Your task to perform on an android device: move an email to a new category in the gmail app Image 0: 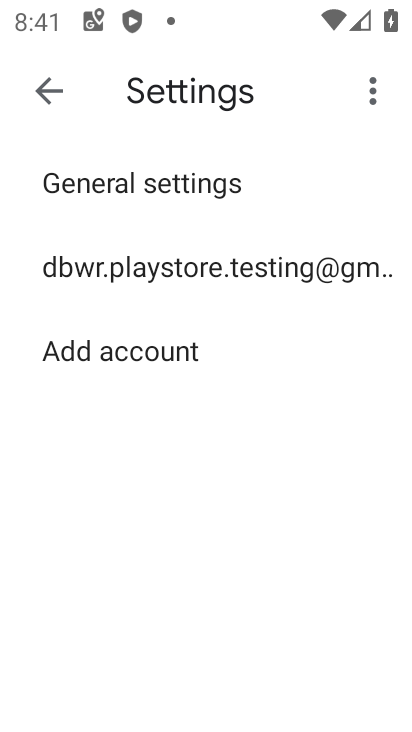
Step 0: click (172, 263)
Your task to perform on an android device: move an email to a new category in the gmail app Image 1: 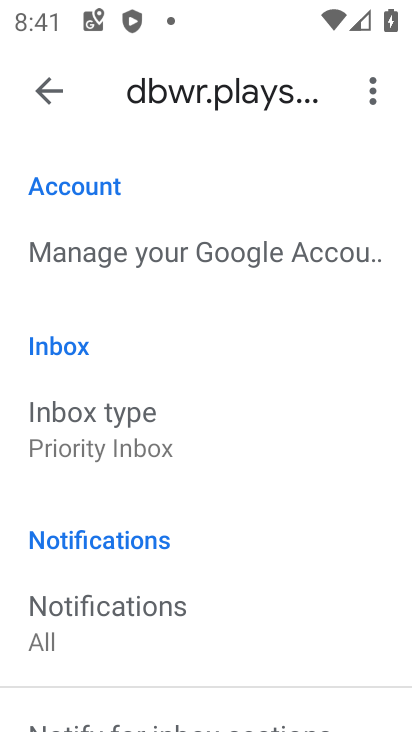
Step 1: click (44, 66)
Your task to perform on an android device: move an email to a new category in the gmail app Image 2: 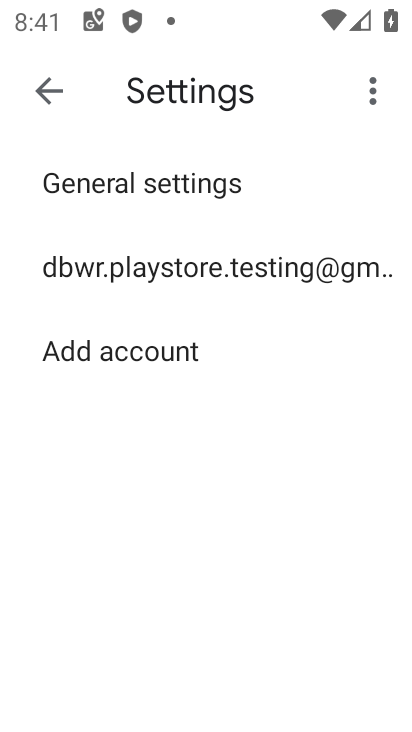
Step 2: click (53, 89)
Your task to perform on an android device: move an email to a new category in the gmail app Image 3: 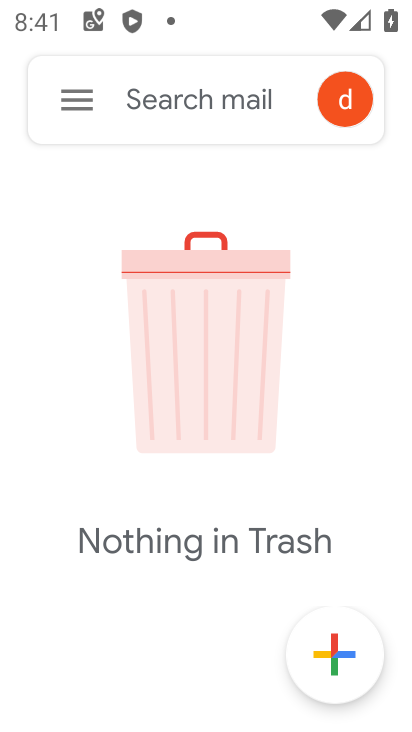
Step 3: click (67, 102)
Your task to perform on an android device: move an email to a new category in the gmail app Image 4: 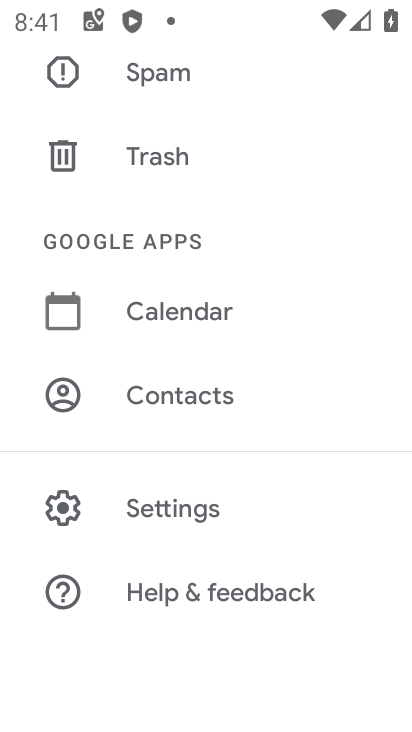
Step 4: drag from (175, 122) to (192, 658)
Your task to perform on an android device: move an email to a new category in the gmail app Image 5: 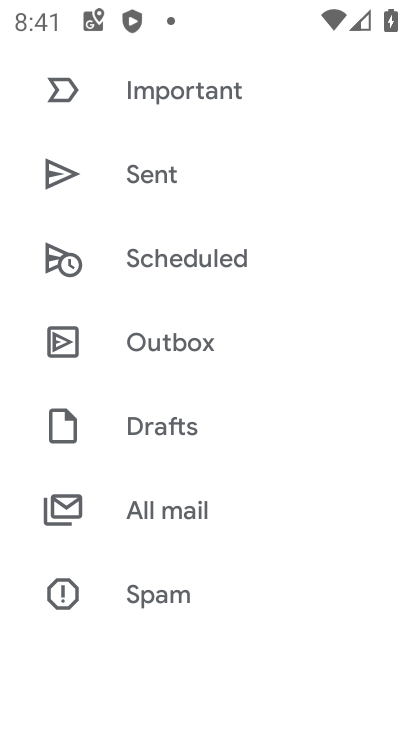
Step 5: drag from (292, 121) to (312, 698)
Your task to perform on an android device: move an email to a new category in the gmail app Image 6: 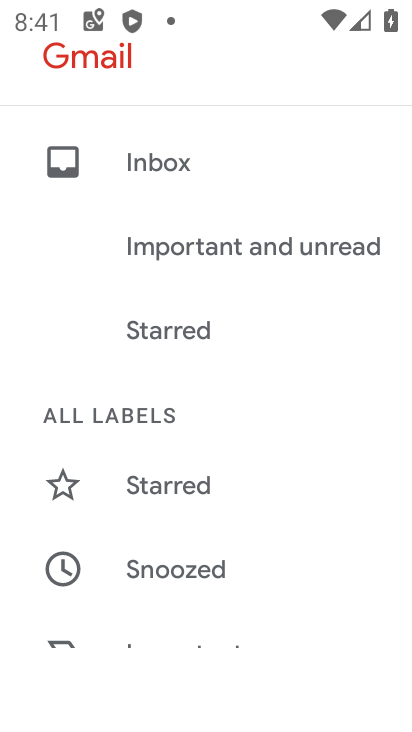
Step 6: click (154, 153)
Your task to perform on an android device: move an email to a new category in the gmail app Image 7: 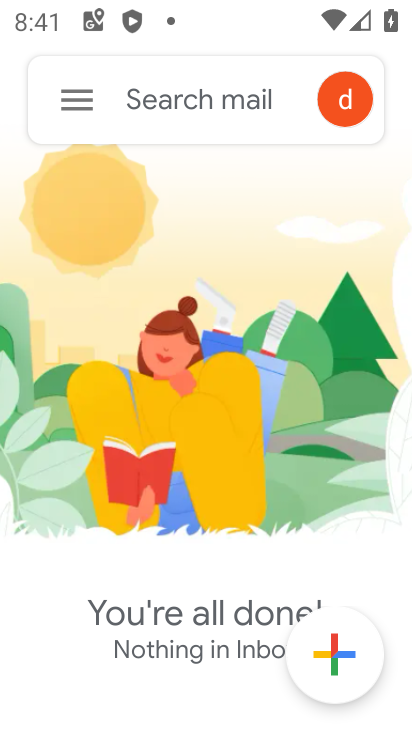
Step 7: task complete